Your task to perform on an android device: toggle sleep mode Image 0: 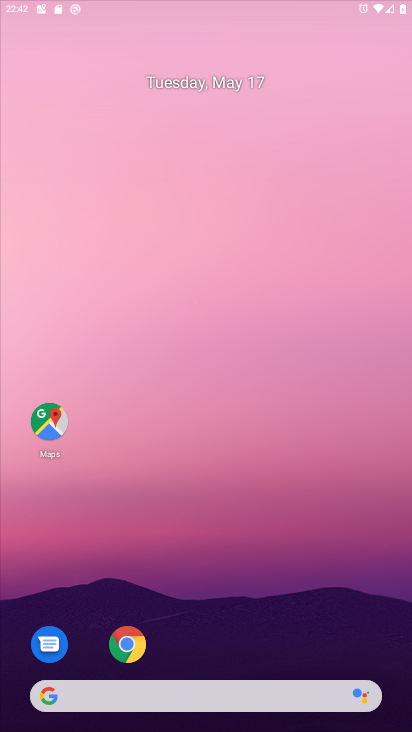
Step 0: press home button
Your task to perform on an android device: toggle sleep mode Image 1: 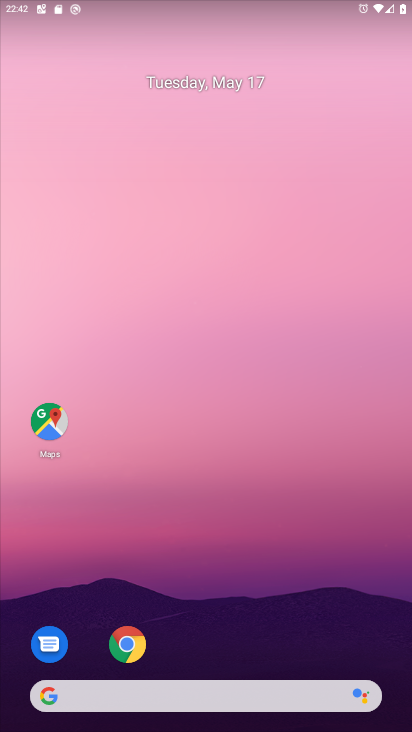
Step 1: drag from (207, 662) to (233, 56)
Your task to perform on an android device: toggle sleep mode Image 2: 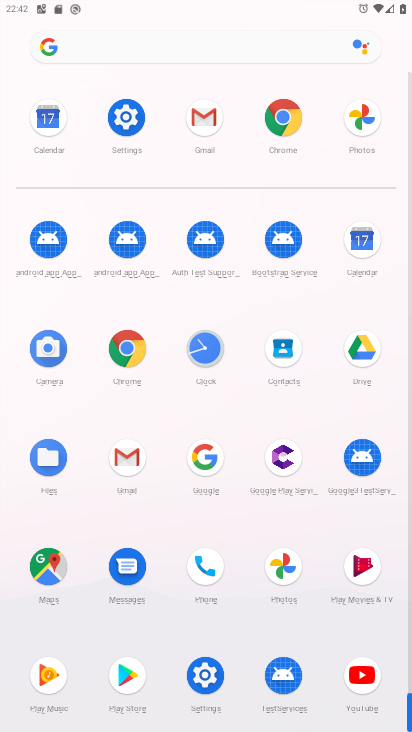
Step 2: click (132, 113)
Your task to perform on an android device: toggle sleep mode Image 3: 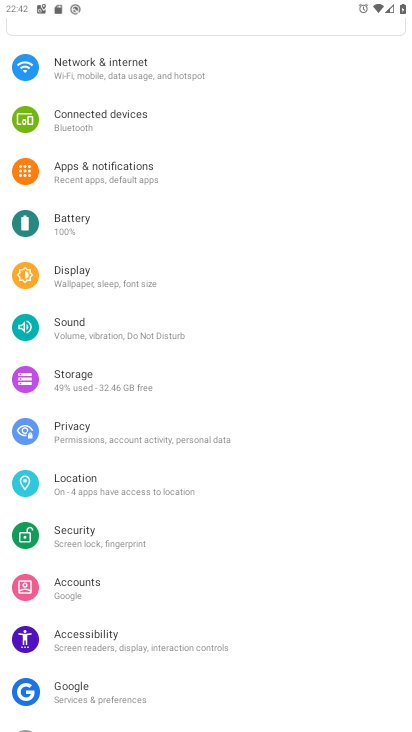
Step 3: click (87, 268)
Your task to perform on an android device: toggle sleep mode Image 4: 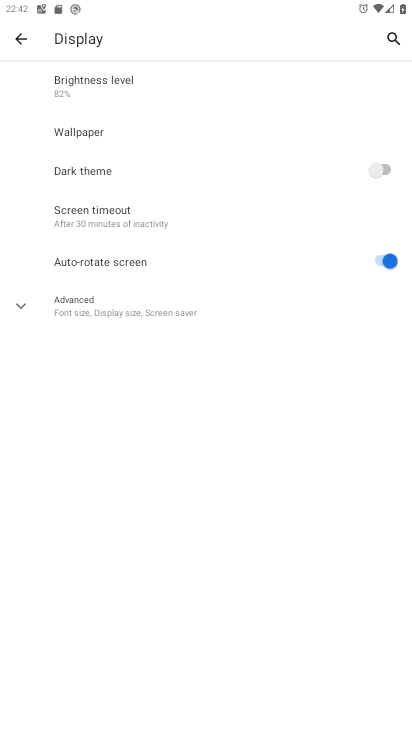
Step 4: click (49, 301)
Your task to perform on an android device: toggle sleep mode Image 5: 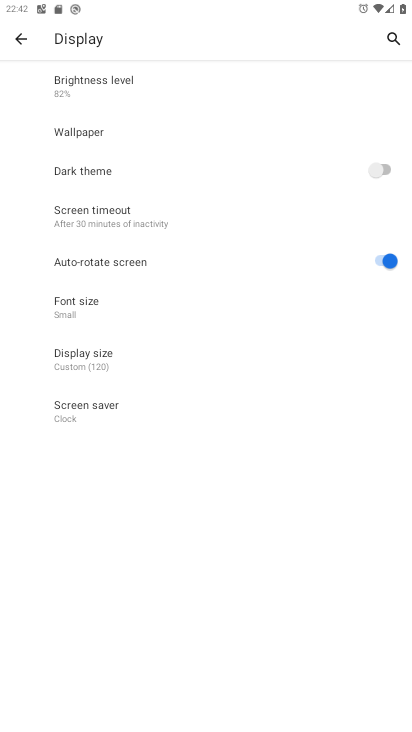
Step 5: task complete